Your task to perform on an android device: turn on data saver in the chrome app Image 0: 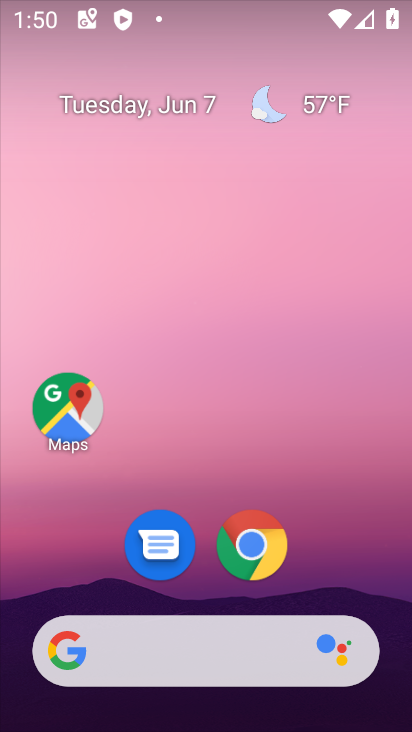
Step 0: click (267, 551)
Your task to perform on an android device: turn on data saver in the chrome app Image 1: 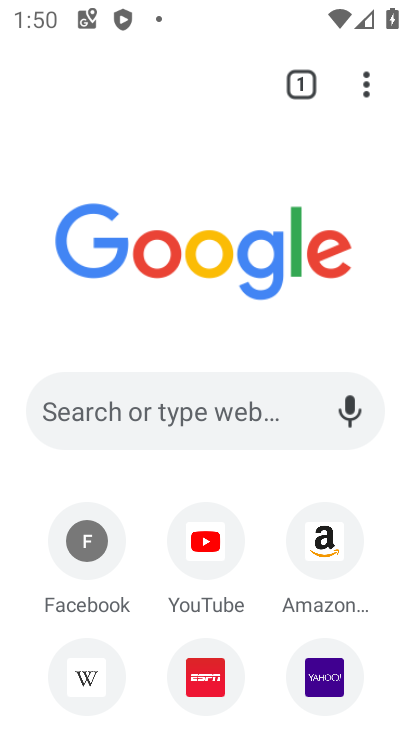
Step 1: click (363, 88)
Your task to perform on an android device: turn on data saver in the chrome app Image 2: 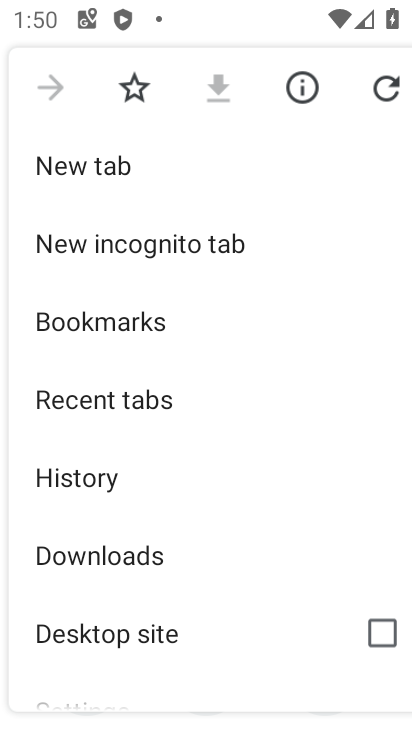
Step 2: drag from (234, 623) to (344, 117)
Your task to perform on an android device: turn on data saver in the chrome app Image 3: 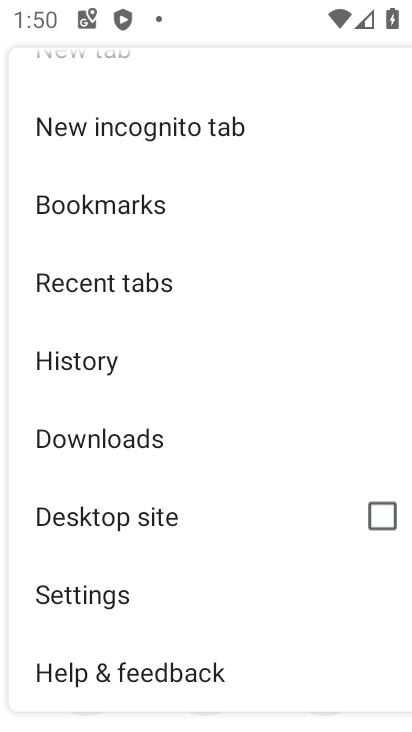
Step 3: click (120, 574)
Your task to perform on an android device: turn on data saver in the chrome app Image 4: 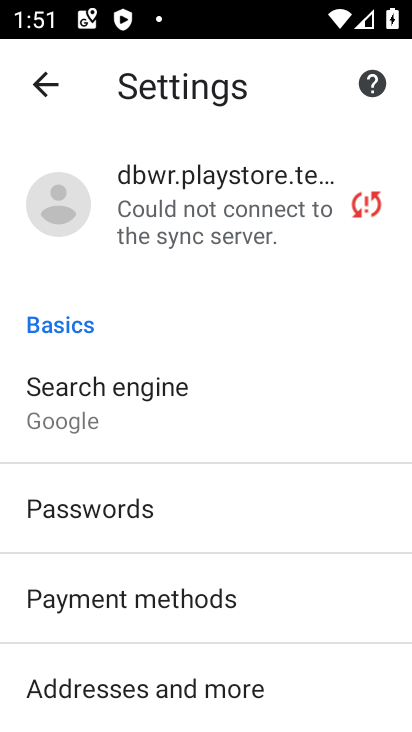
Step 4: drag from (236, 641) to (251, 43)
Your task to perform on an android device: turn on data saver in the chrome app Image 5: 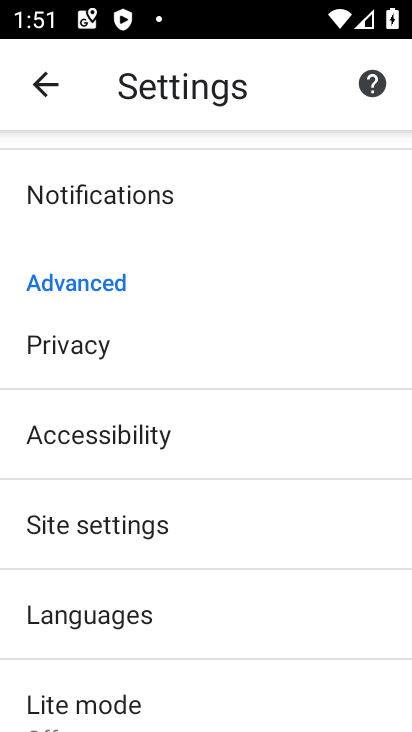
Step 5: click (159, 717)
Your task to perform on an android device: turn on data saver in the chrome app Image 6: 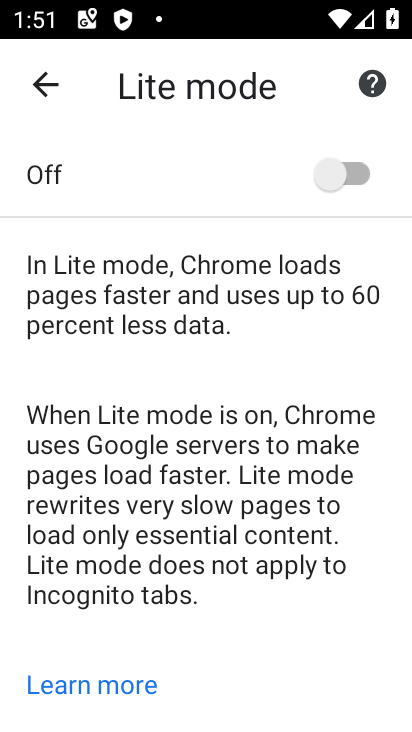
Step 6: click (338, 173)
Your task to perform on an android device: turn on data saver in the chrome app Image 7: 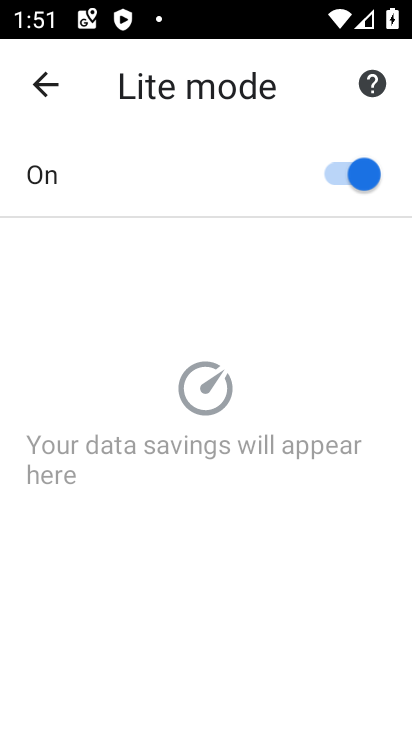
Step 7: task complete